Your task to perform on an android device: Open the stopwatch Image 0: 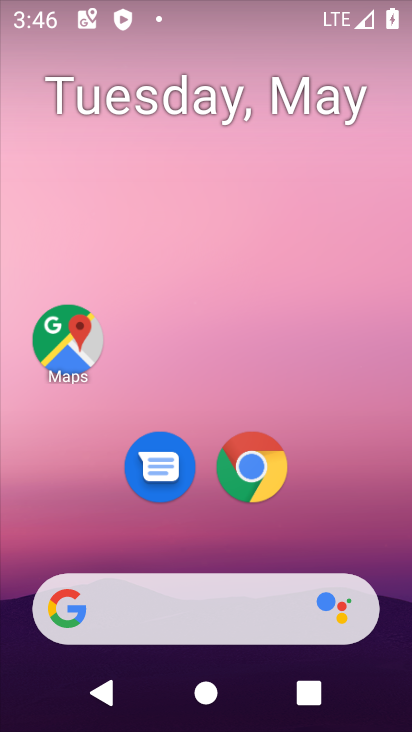
Step 0: drag from (347, 508) to (409, 533)
Your task to perform on an android device: Open the stopwatch Image 1: 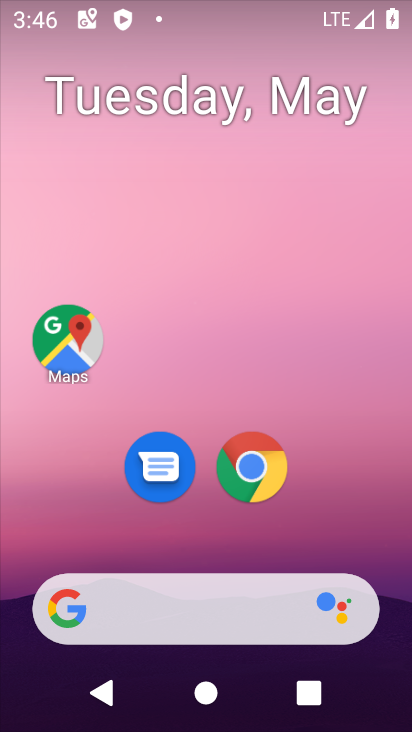
Step 1: drag from (375, 559) to (356, 107)
Your task to perform on an android device: Open the stopwatch Image 2: 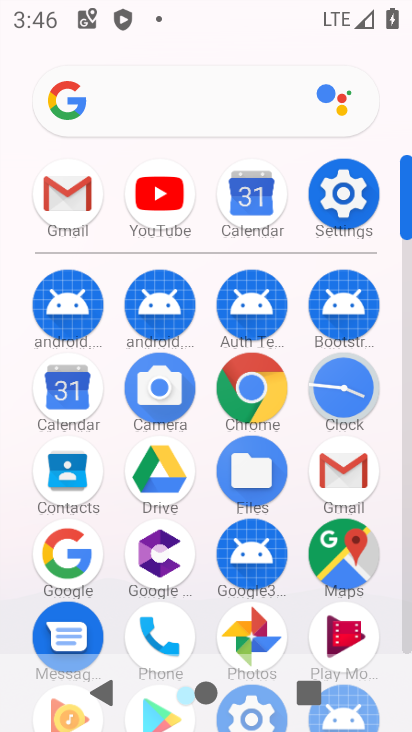
Step 2: click (343, 391)
Your task to perform on an android device: Open the stopwatch Image 3: 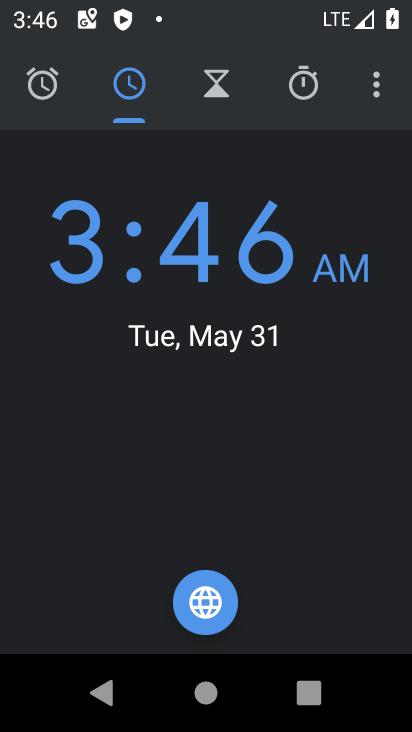
Step 3: click (300, 87)
Your task to perform on an android device: Open the stopwatch Image 4: 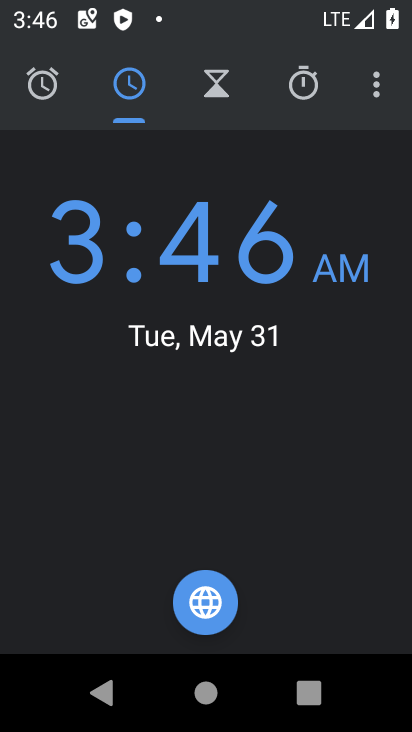
Step 4: click (300, 83)
Your task to perform on an android device: Open the stopwatch Image 5: 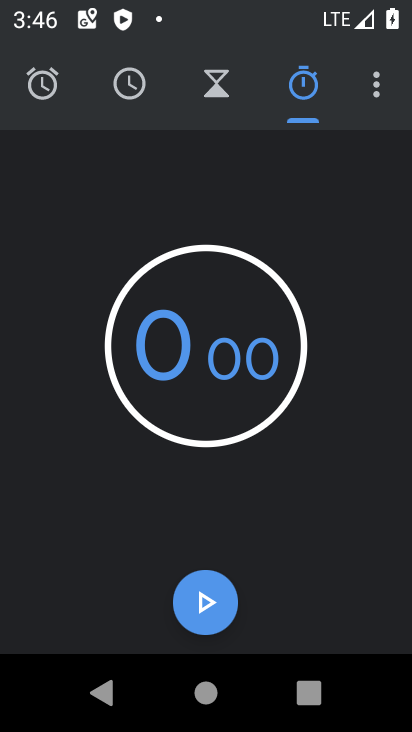
Step 5: task complete